Your task to perform on an android device: Open accessibility settings Image 0: 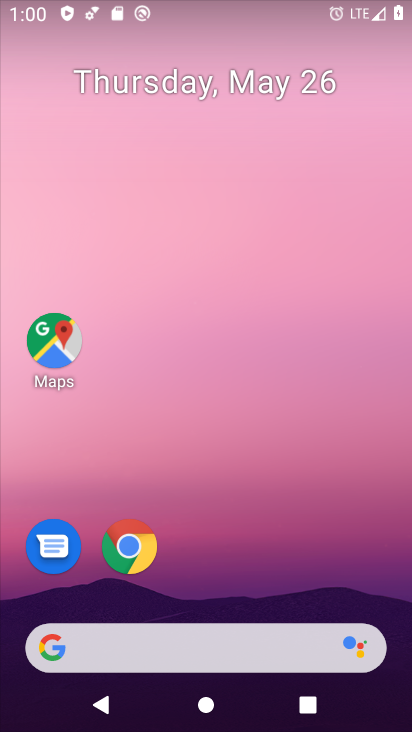
Step 0: drag from (366, 586) to (307, 8)
Your task to perform on an android device: Open accessibility settings Image 1: 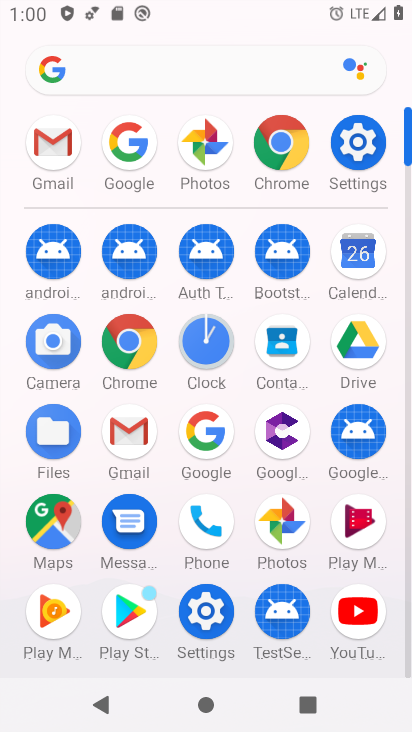
Step 1: click (371, 140)
Your task to perform on an android device: Open accessibility settings Image 2: 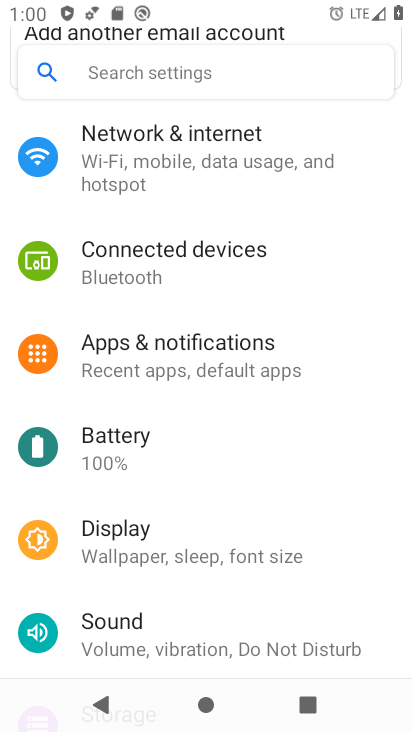
Step 2: drag from (152, 631) to (242, 68)
Your task to perform on an android device: Open accessibility settings Image 3: 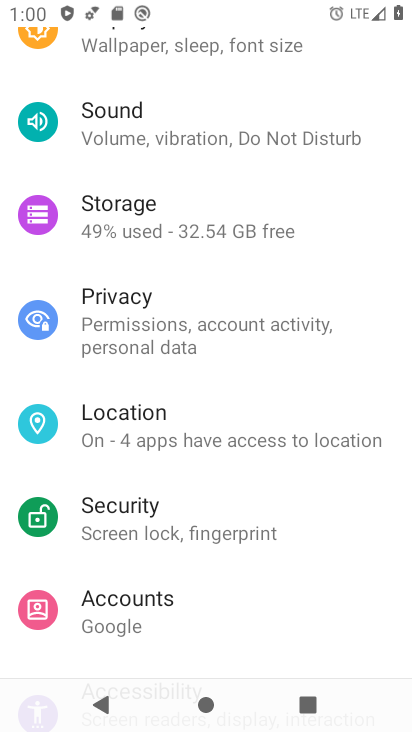
Step 3: drag from (150, 538) to (162, 154)
Your task to perform on an android device: Open accessibility settings Image 4: 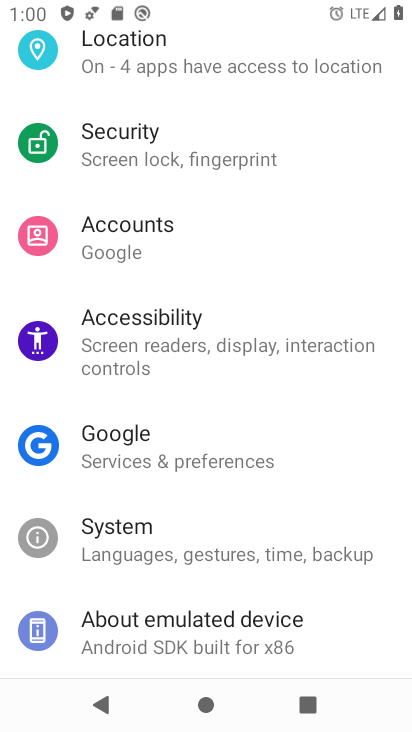
Step 4: click (160, 325)
Your task to perform on an android device: Open accessibility settings Image 5: 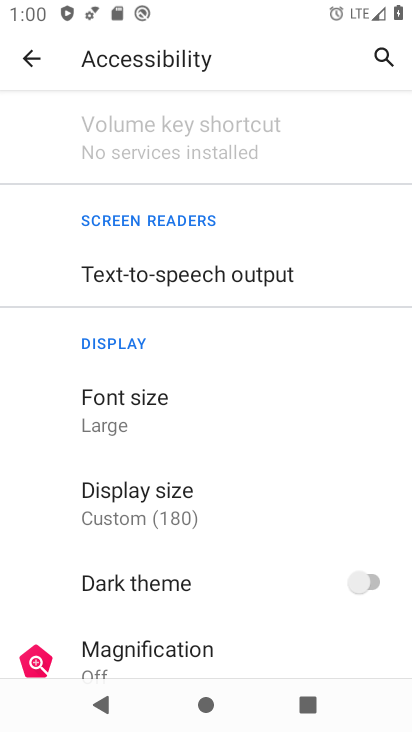
Step 5: task complete